Your task to perform on an android device: What's the weather? Image 0: 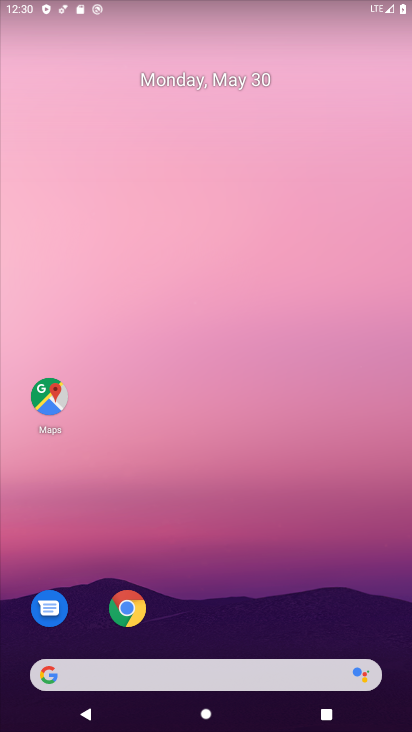
Step 0: click (224, 670)
Your task to perform on an android device: What's the weather? Image 1: 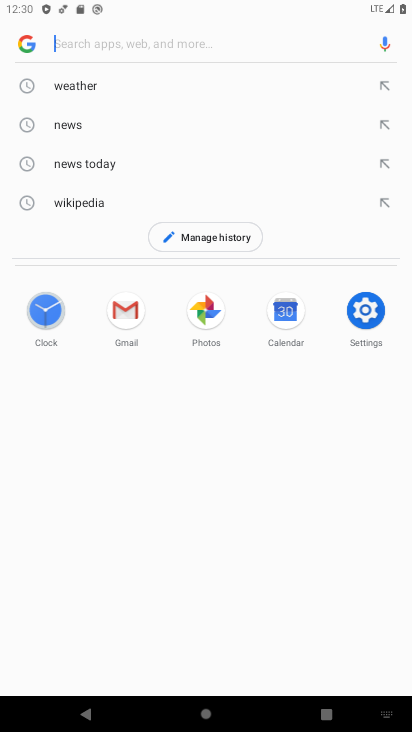
Step 1: click (91, 85)
Your task to perform on an android device: What's the weather? Image 2: 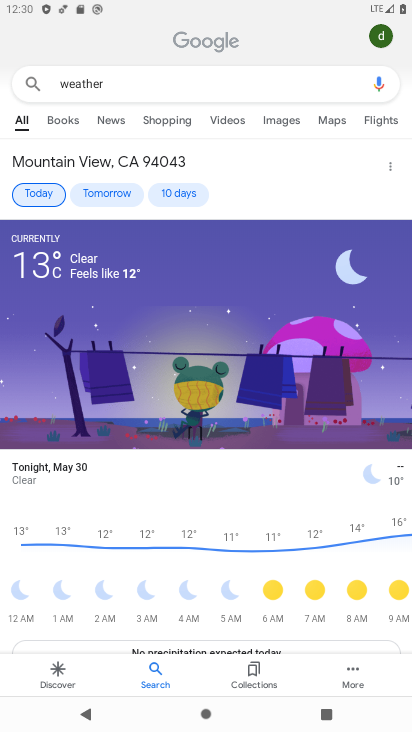
Step 2: task complete